Your task to perform on an android device: Open Reddit.com Image 0: 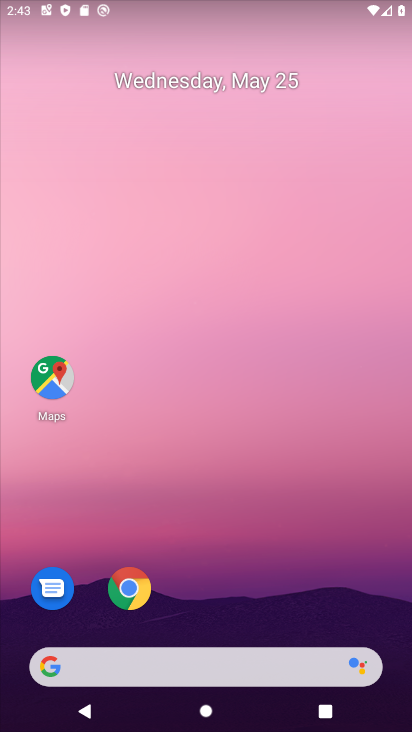
Step 0: drag from (293, 652) to (283, 174)
Your task to perform on an android device: Open Reddit.com Image 1: 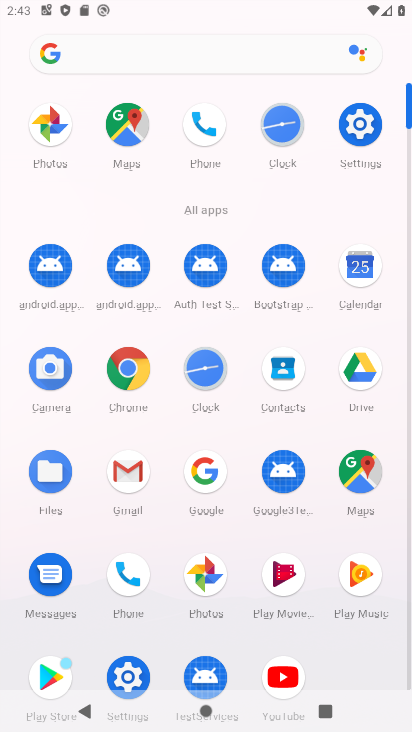
Step 1: click (138, 370)
Your task to perform on an android device: Open Reddit.com Image 2: 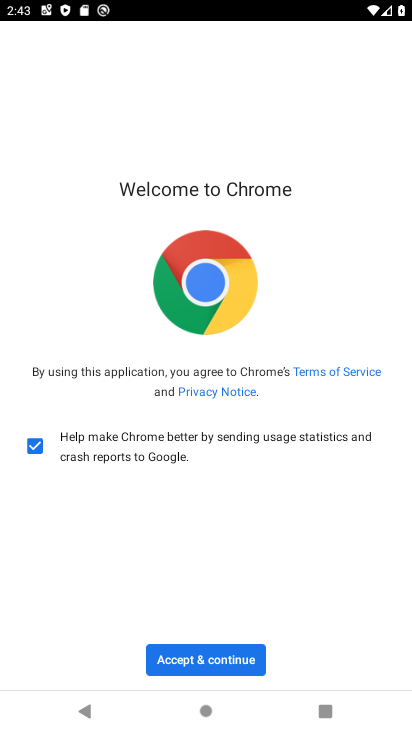
Step 2: click (222, 658)
Your task to perform on an android device: Open Reddit.com Image 3: 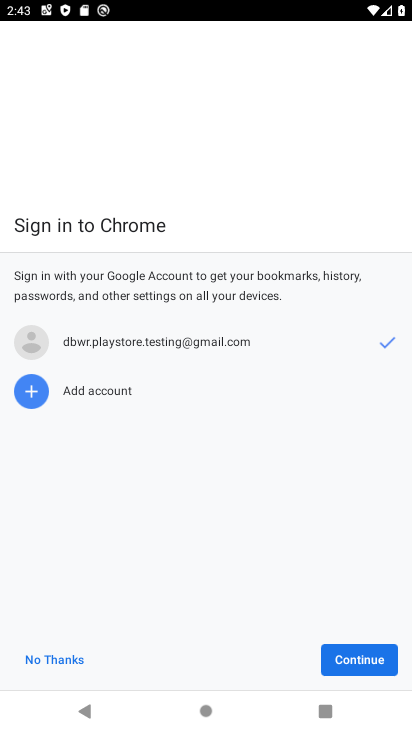
Step 3: click (352, 661)
Your task to perform on an android device: Open Reddit.com Image 4: 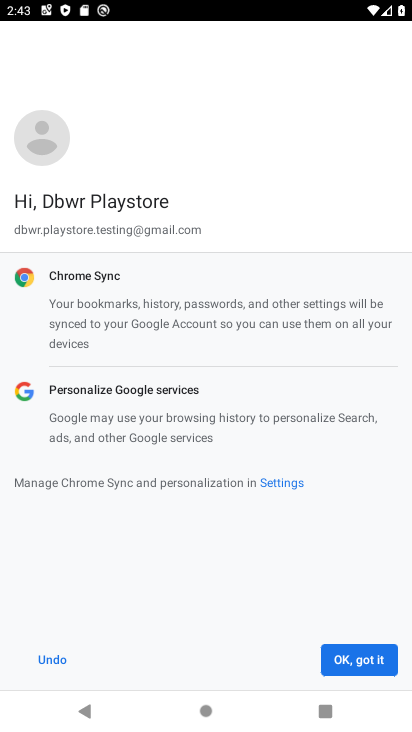
Step 4: click (352, 649)
Your task to perform on an android device: Open Reddit.com Image 5: 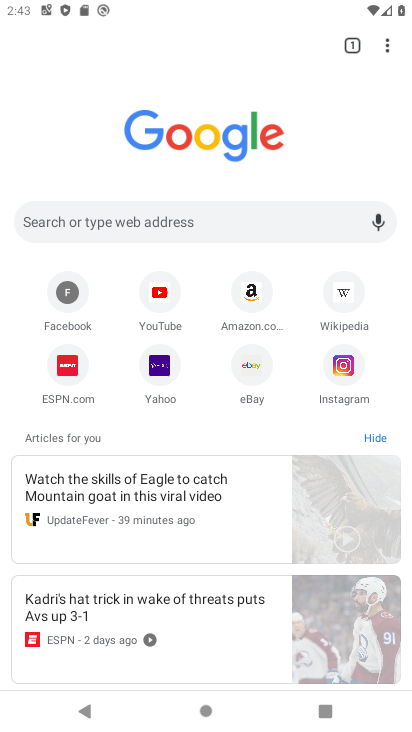
Step 5: click (169, 226)
Your task to perform on an android device: Open Reddit.com Image 6: 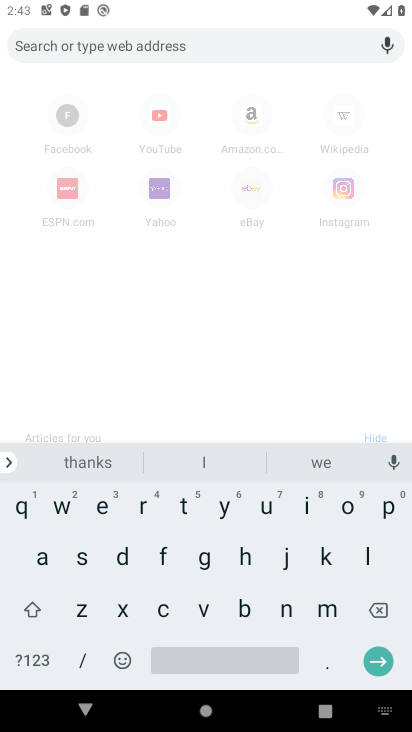
Step 6: click (136, 503)
Your task to perform on an android device: Open Reddit.com Image 7: 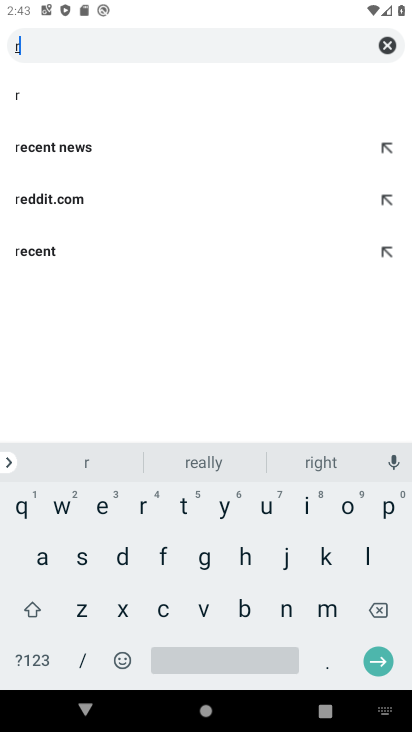
Step 7: click (91, 204)
Your task to perform on an android device: Open Reddit.com Image 8: 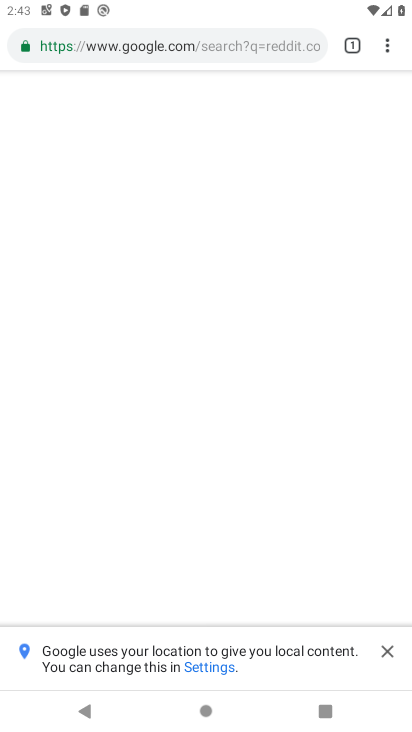
Step 8: task complete